Your task to perform on an android device: change the clock display to digital Image 0: 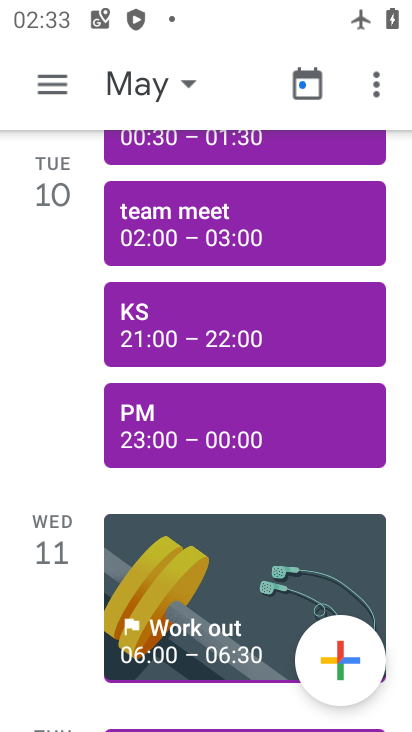
Step 0: press home button
Your task to perform on an android device: change the clock display to digital Image 1: 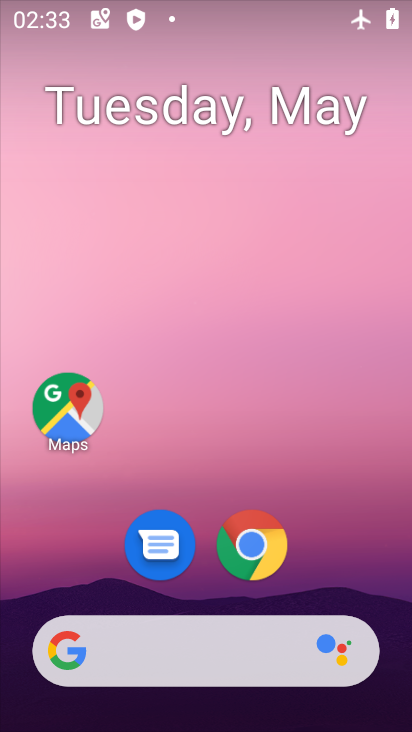
Step 1: drag from (396, 603) to (343, 91)
Your task to perform on an android device: change the clock display to digital Image 2: 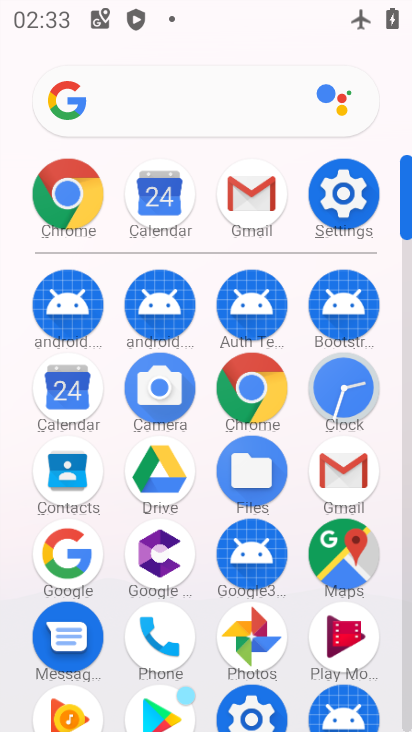
Step 2: click (408, 702)
Your task to perform on an android device: change the clock display to digital Image 3: 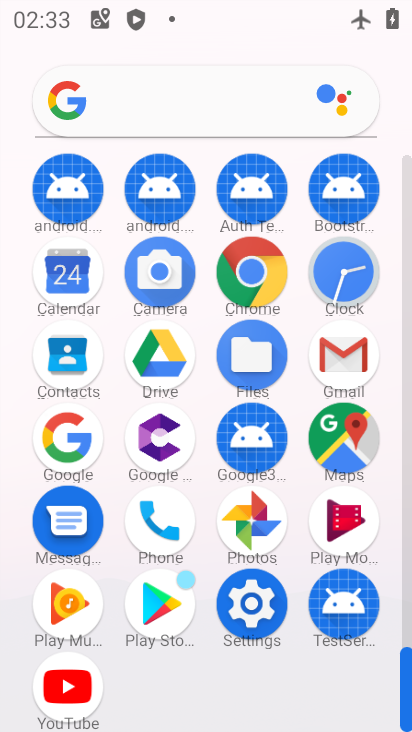
Step 3: click (344, 268)
Your task to perform on an android device: change the clock display to digital Image 4: 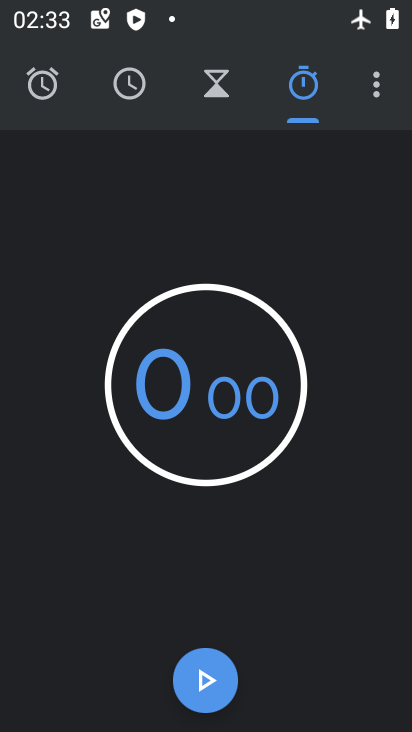
Step 4: click (374, 92)
Your task to perform on an android device: change the clock display to digital Image 5: 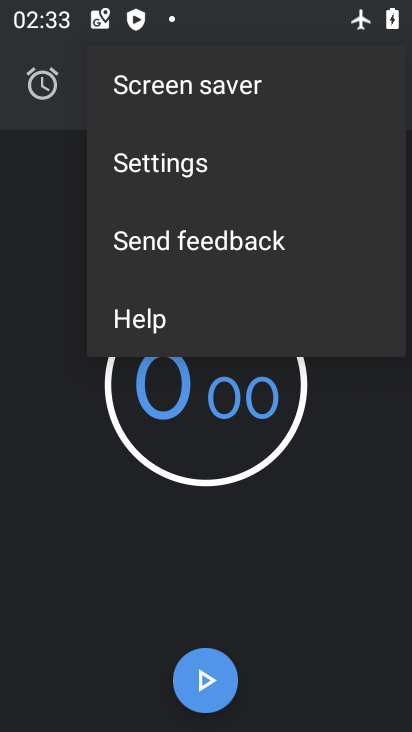
Step 5: click (143, 167)
Your task to perform on an android device: change the clock display to digital Image 6: 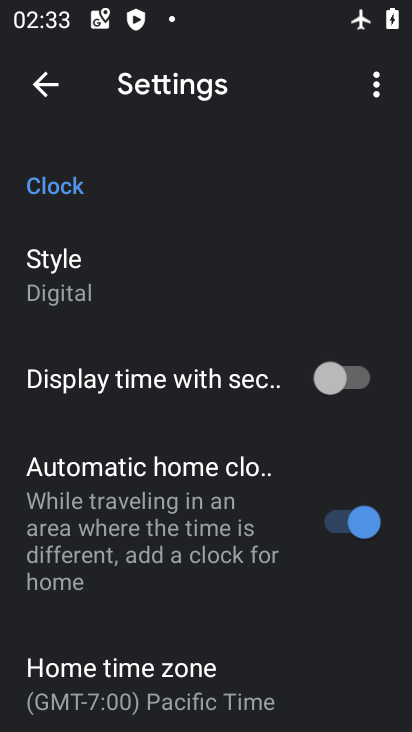
Step 6: task complete